Your task to perform on an android device: toggle notification dots Image 0: 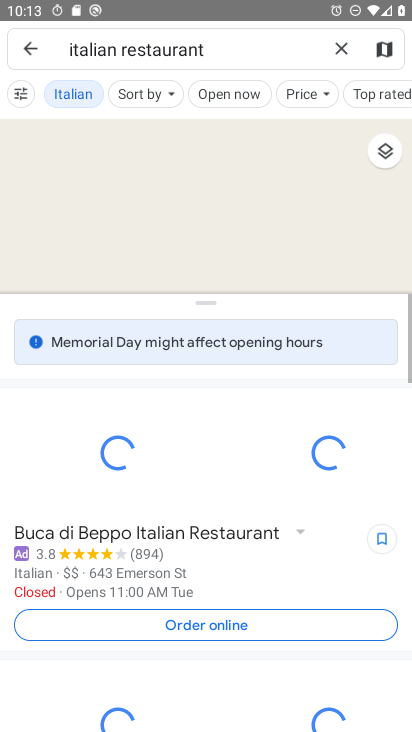
Step 0: press home button
Your task to perform on an android device: toggle notification dots Image 1: 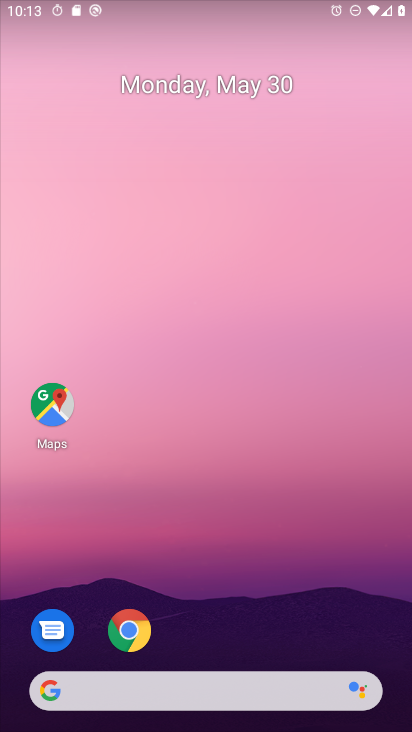
Step 1: drag from (347, 636) to (287, 65)
Your task to perform on an android device: toggle notification dots Image 2: 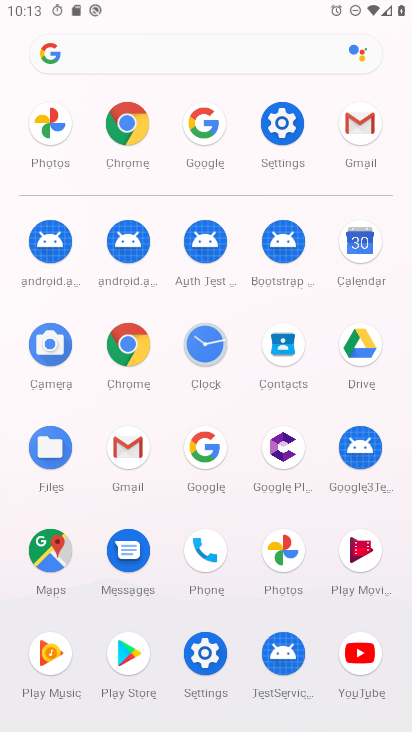
Step 2: click (212, 655)
Your task to perform on an android device: toggle notification dots Image 3: 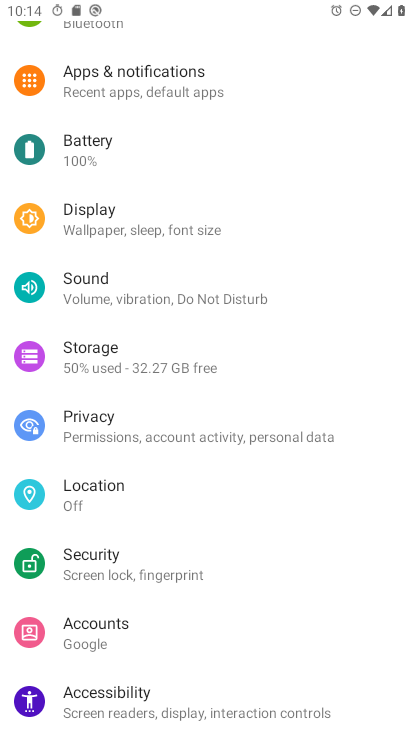
Step 3: click (165, 91)
Your task to perform on an android device: toggle notification dots Image 4: 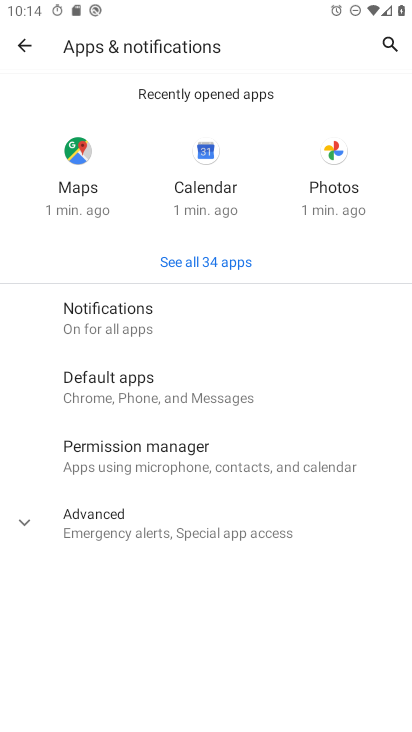
Step 4: click (143, 300)
Your task to perform on an android device: toggle notification dots Image 5: 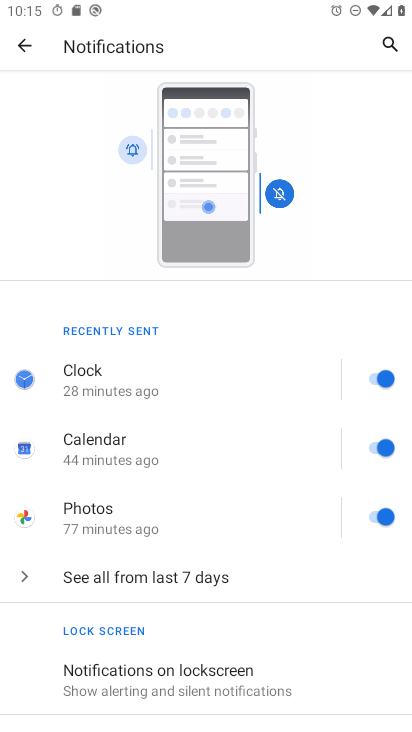
Step 5: drag from (148, 661) to (247, 170)
Your task to perform on an android device: toggle notification dots Image 6: 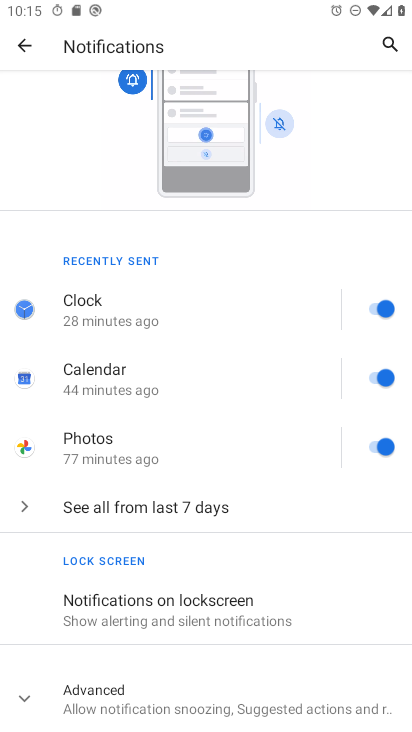
Step 6: click (153, 701)
Your task to perform on an android device: toggle notification dots Image 7: 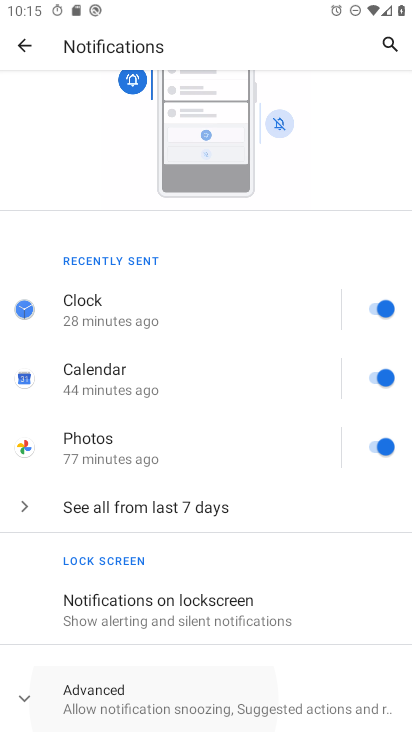
Step 7: drag from (153, 701) to (233, 141)
Your task to perform on an android device: toggle notification dots Image 8: 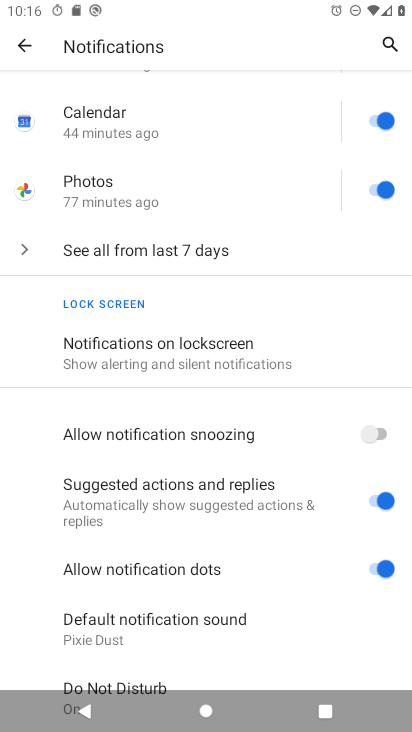
Step 8: click (268, 574)
Your task to perform on an android device: toggle notification dots Image 9: 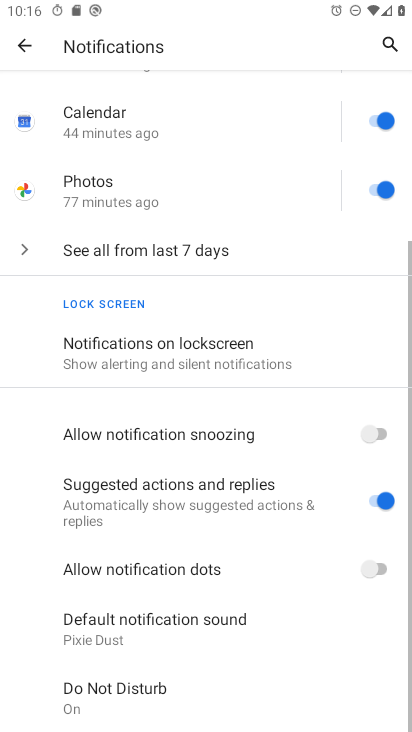
Step 9: task complete